Your task to perform on an android device: delete browsing data in the chrome app Image 0: 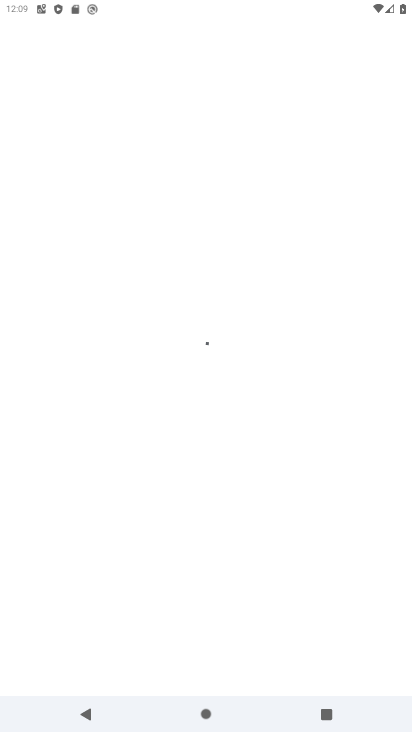
Step 0: press home button
Your task to perform on an android device: delete browsing data in the chrome app Image 1: 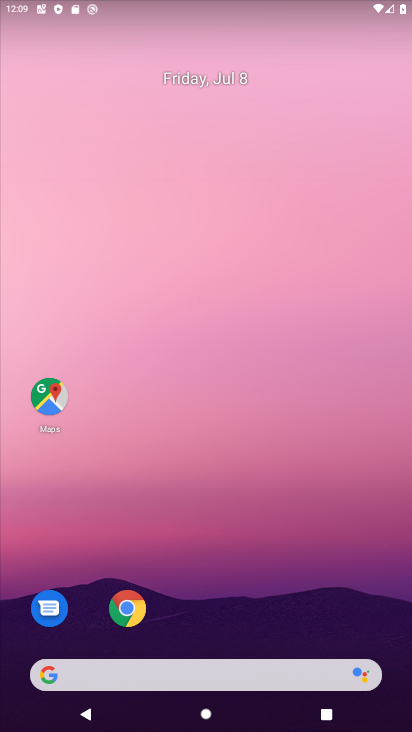
Step 1: click (121, 613)
Your task to perform on an android device: delete browsing data in the chrome app Image 2: 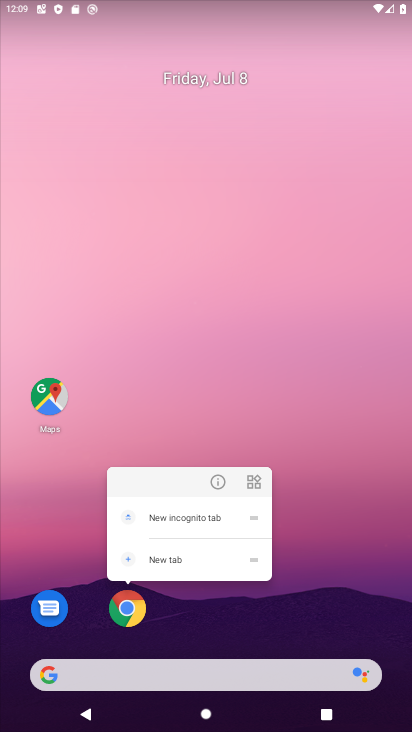
Step 2: click (360, 312)
Your task to perform on an android device: delete browsing data in the chrome app Image 3: 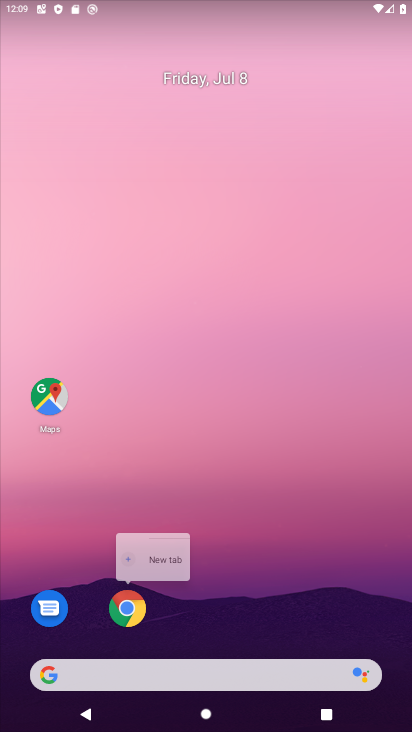
Step 3: click (360, 312)
Your task to perform on an android device: delete browsing data in the chrome app Image 4: 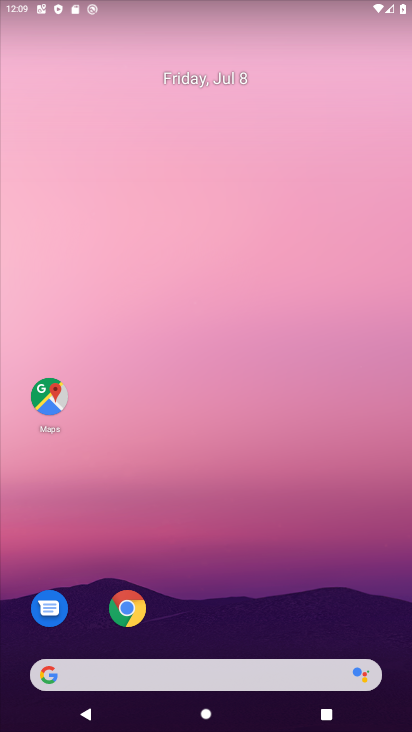
Step 4: click (360, 312)
Your task to perform on an android device: delete browsing data in the chrome app Image 5: 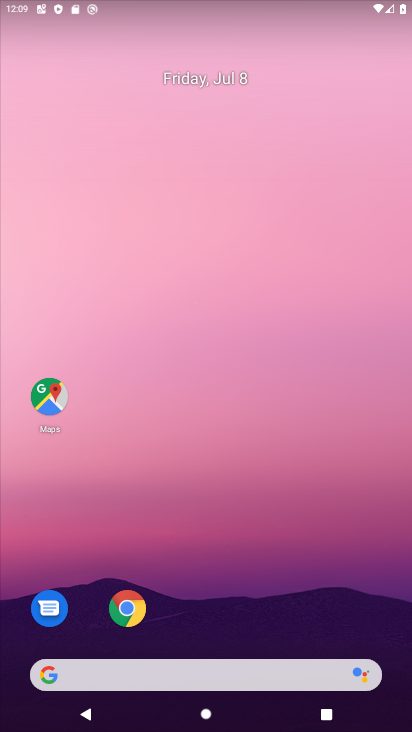
Step 5: click (130, 605)
Your task to perform on an android device: delete browsing data in the chrome app Image 6: 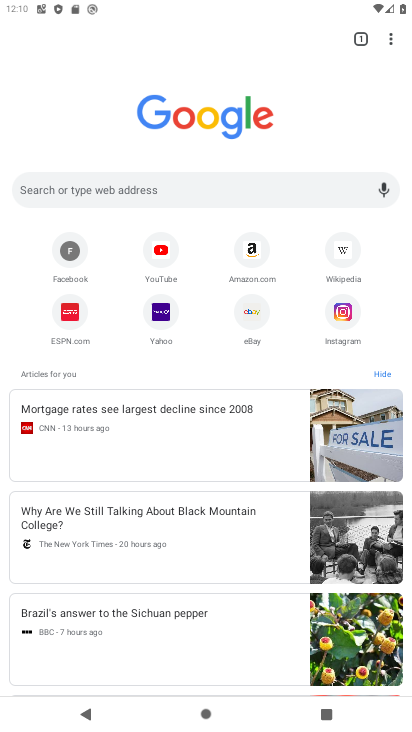
Step 6: click (388, 45)
Your task to perform on an android device: delete browsing data in the chrome app Image 7: 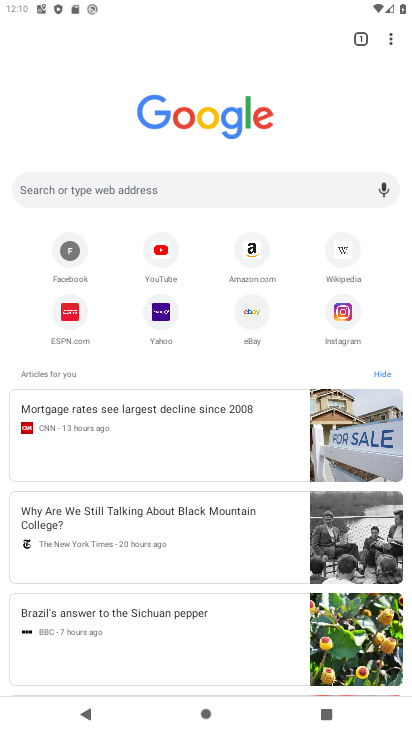
Step 7: drag from (396, 35) to (273, 323)
Your task to perform on an android device: delete browsing data in the chrome app Image 8: 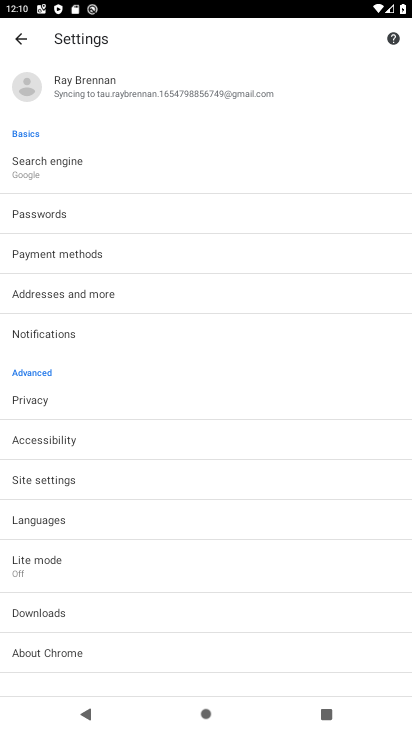
Step 8: click (59, 391)
Your task to perform on an android device: delete browsing data in the chrome app Image 9: 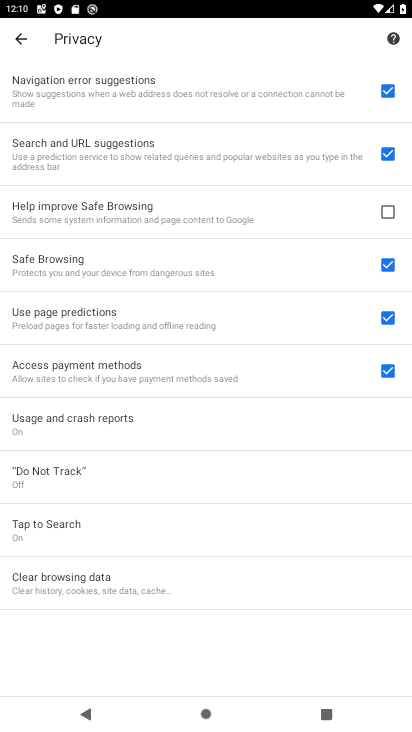
Step 9: click (76, 602)
Your task to perform on an android device: delete browsing data in the chrome app Image 10: 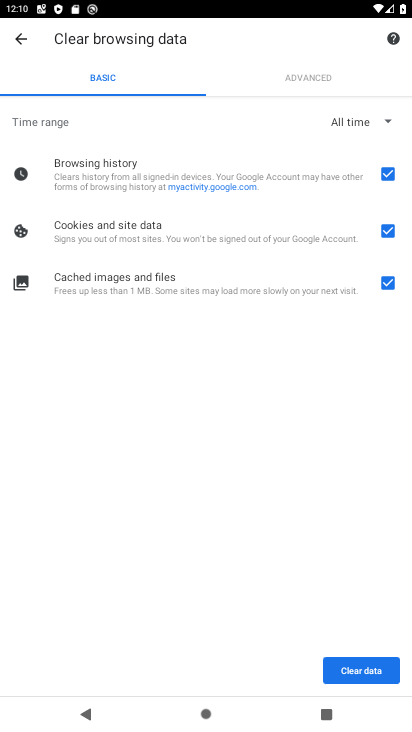
Step 10: click (380, 666)
Your task to perform on an android device: delete browsing data in the chrome app Image 11: 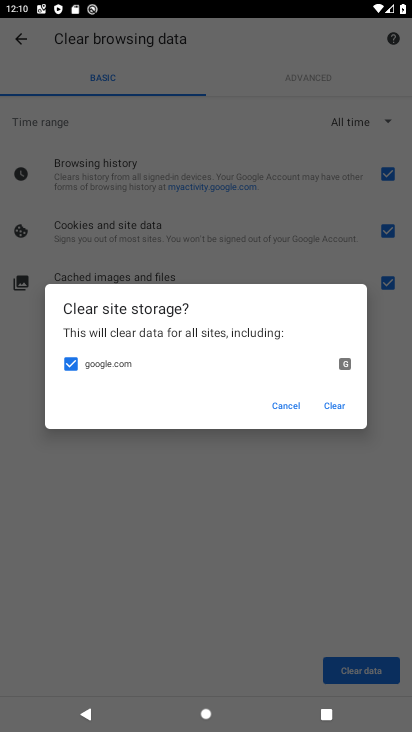
Step 11: click (324, 402)
Your task to perform on an android device: delete browsing data in the chrome app Image 12: 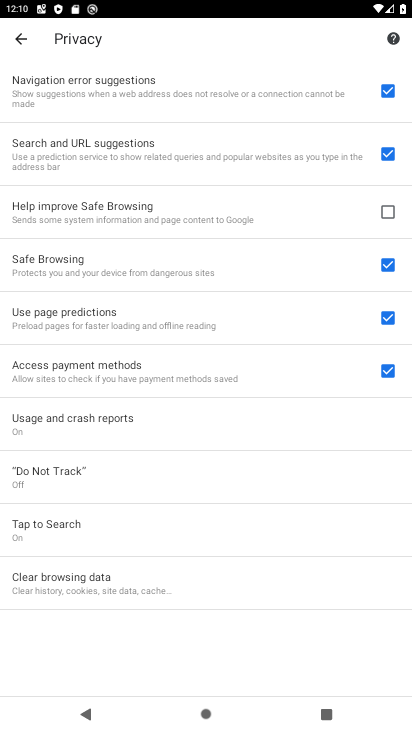
Step 12: task complete